Your task to perform on an android device: Search for a cheap bike on Walmart Image 0: 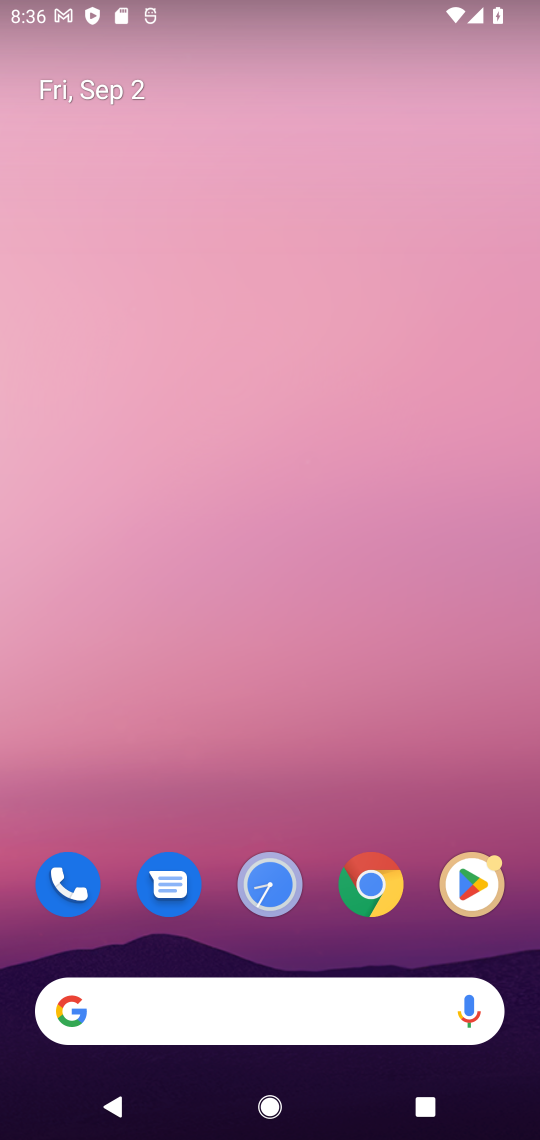
Step 0: click (374, 883)
Your task to perform on an android device: Search for a cheap bike on Walmart Image 1: 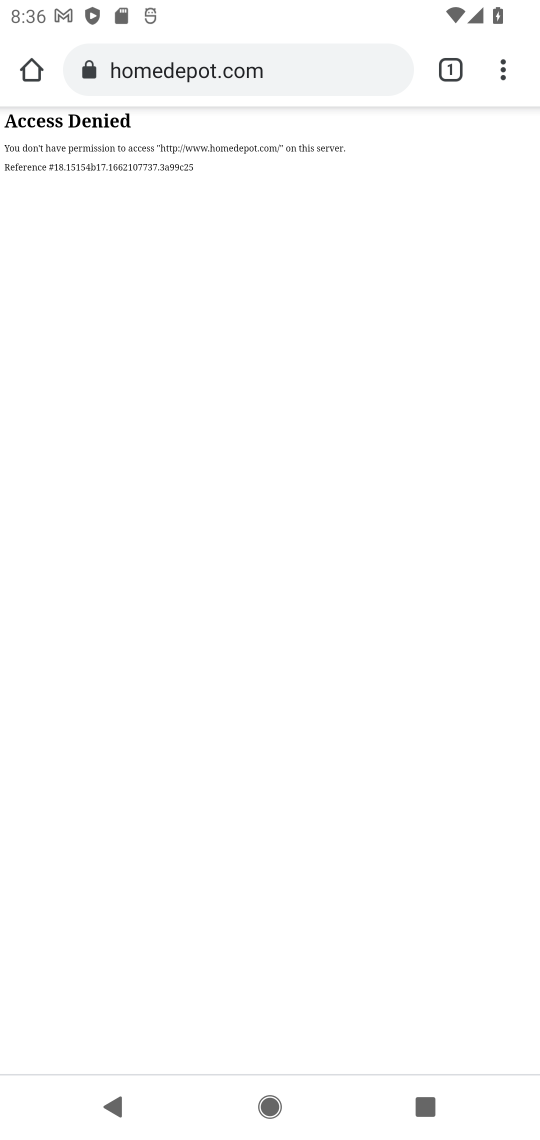
Step 1: click (353, 70)
Your task to perform on an android device: Search for a cheap bike on Walmart Image 2: 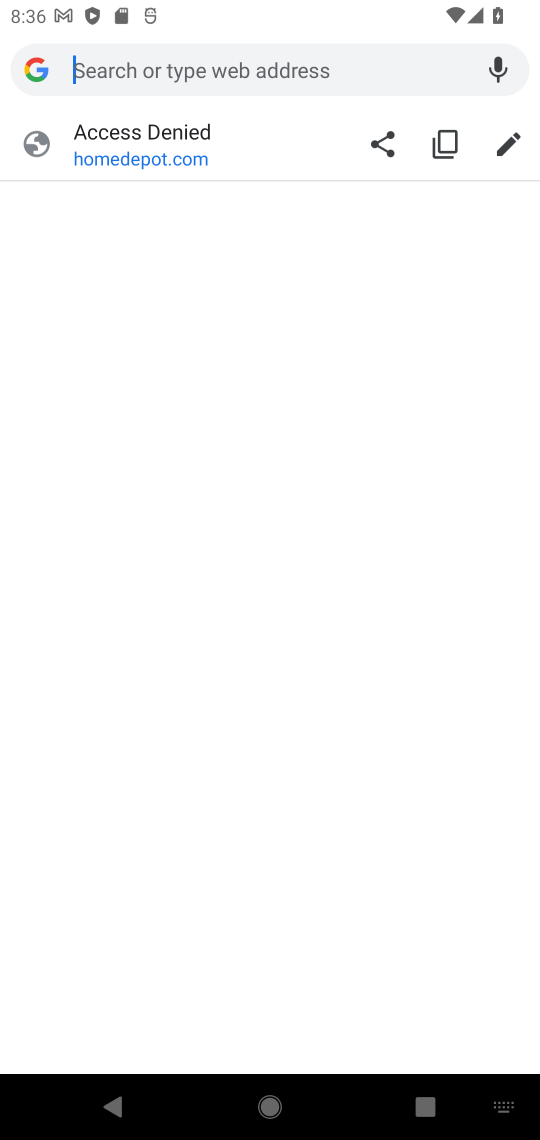
Step 2: type "walmart"
Your task to perform on an android device: Search for a cheap bike on Walmart Image 3: 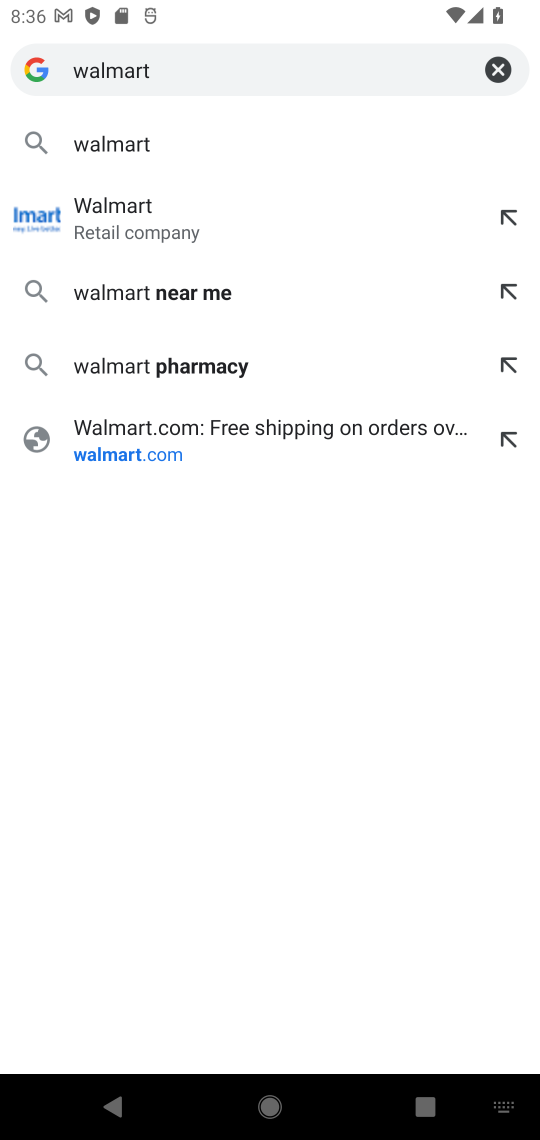
Step 3: click (121, 223)
Your task to perform on an android device: Search for a cheap bike on Walmart Image 4: 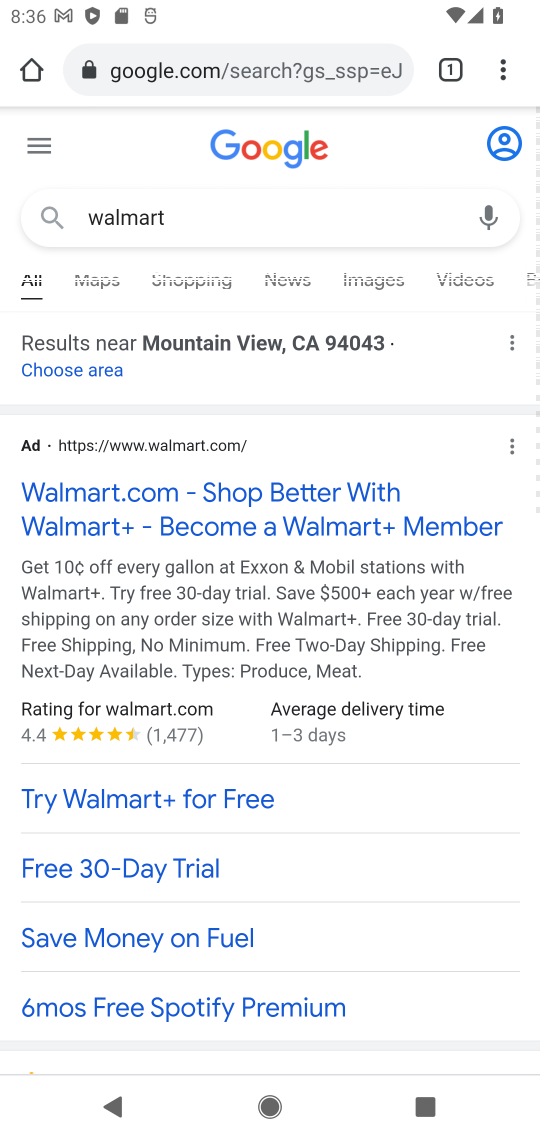
Step 4: click (94, 488)
Your task to perform on an android device: Search for a cheap bike on Walmart Image 5: 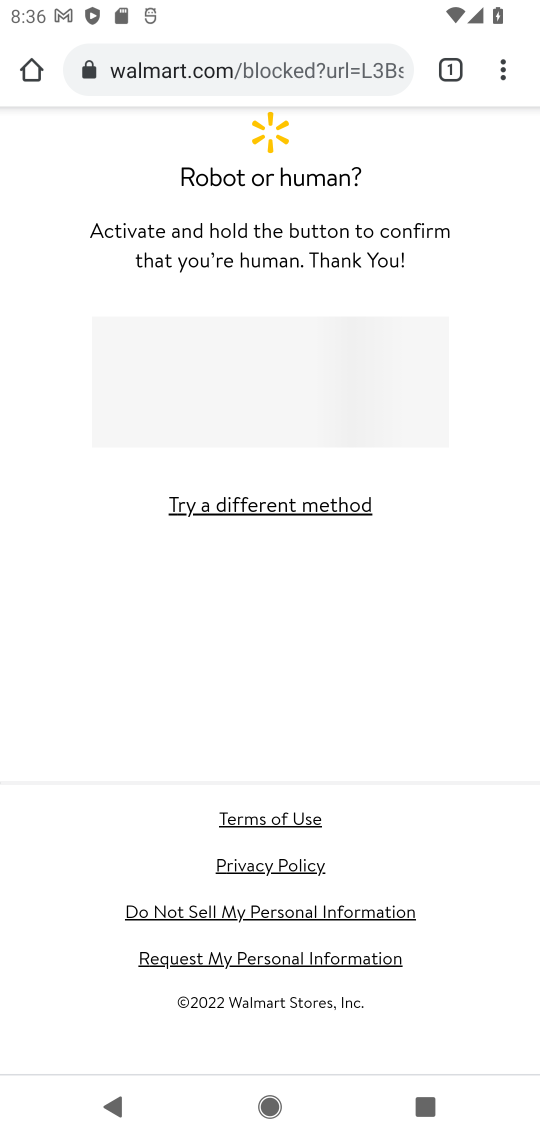
Step 5: drag from (385, 489) to (361, 754)
Your task to perform on an android device: Search for a cheap bike on Walmart Image 6: 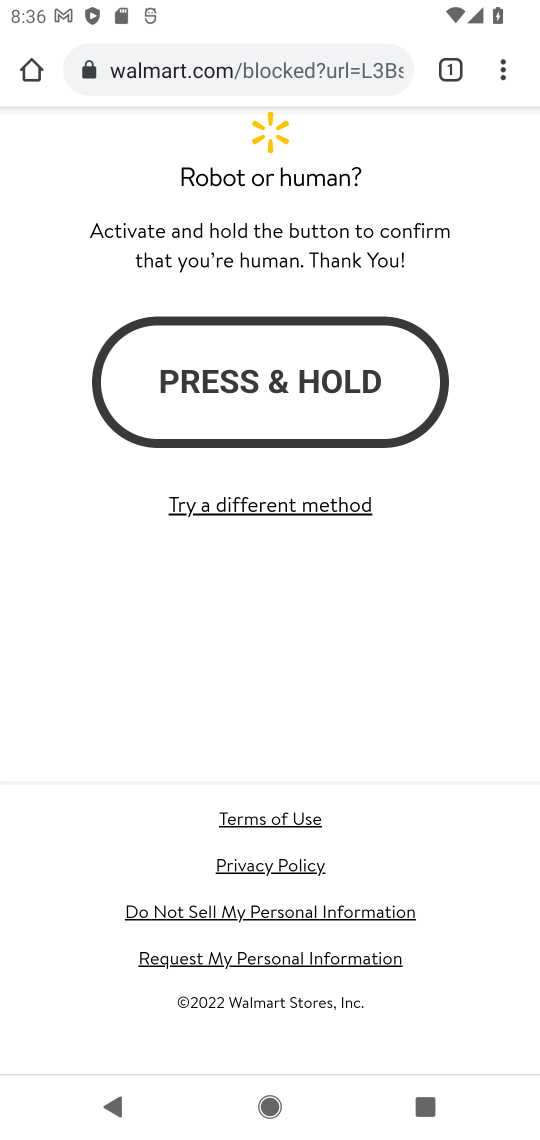
Step 6: drag from (384, 643) to (381, 304)
Your task to perform on an android device: Search for a cheap bike on Walmart Image 7: 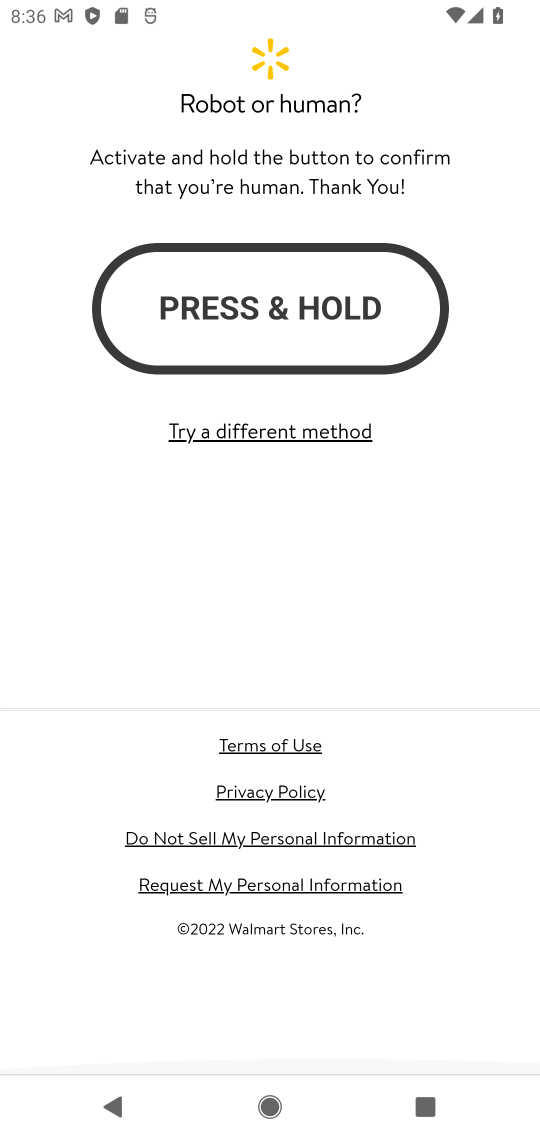
Step 7: drag from (355, 484) to (362, 903)
Your task to perform on an android device: Search for a cheap bike on Walmart Image 8: 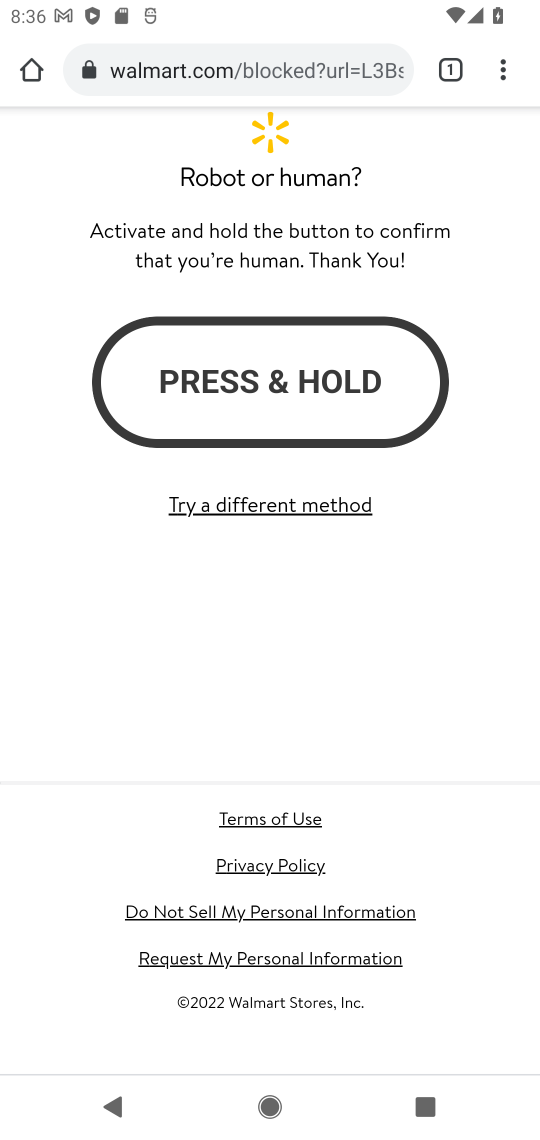
Step 8: press back button
Your task to perform on an android device: Search for a cheap bike on Walmart Image 9: 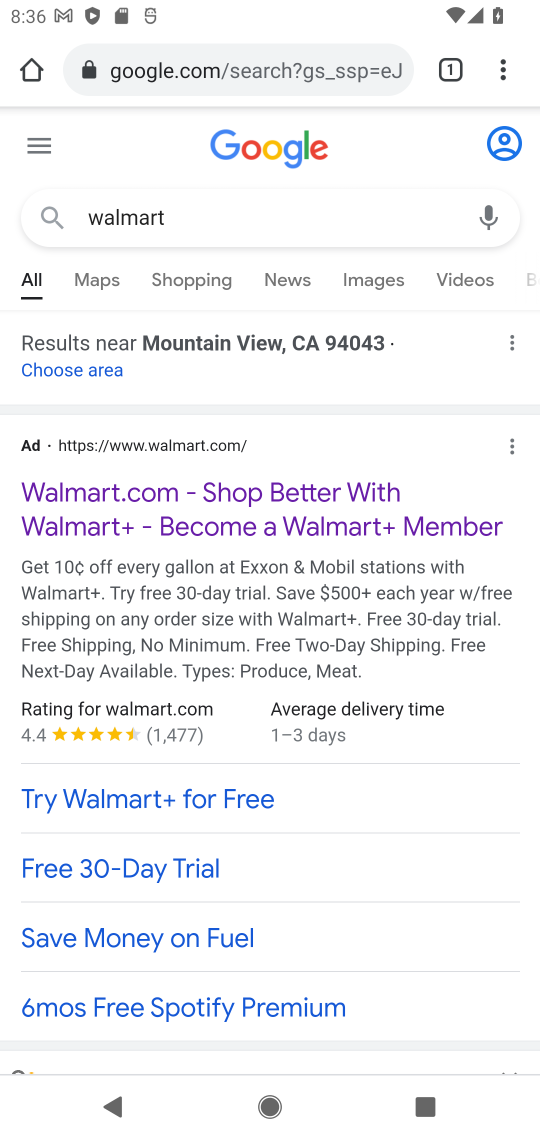
Step 9: drag from (364, 820) to (365, 363)
Your task to perform on an android device: Search for a cheap bike on Walmart Image 10: 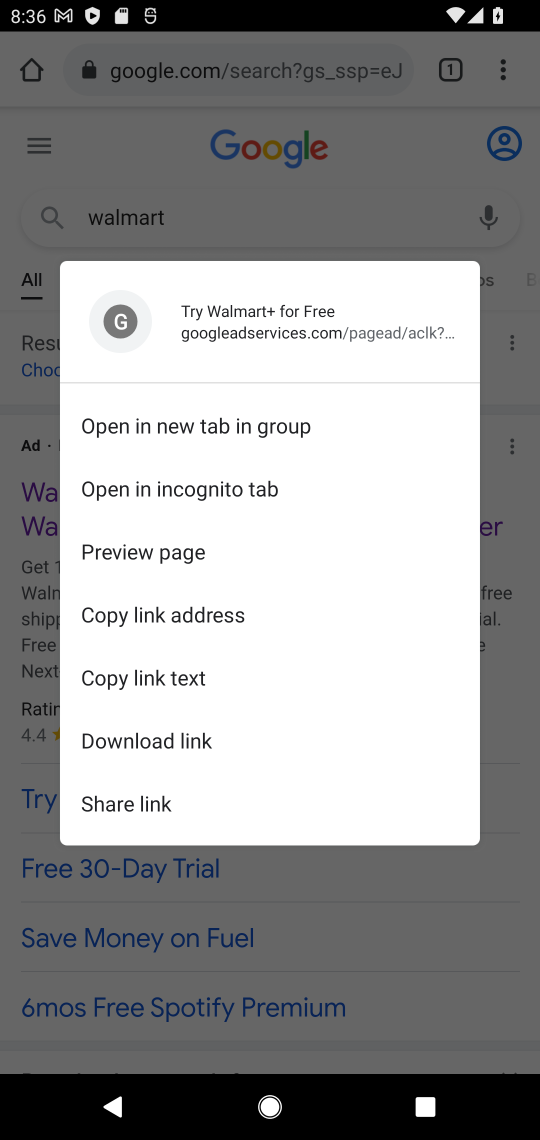
Step 10: click (537, 631)
Your task to perform on an android device: Search for a cheap bike on Walmart Image 11: 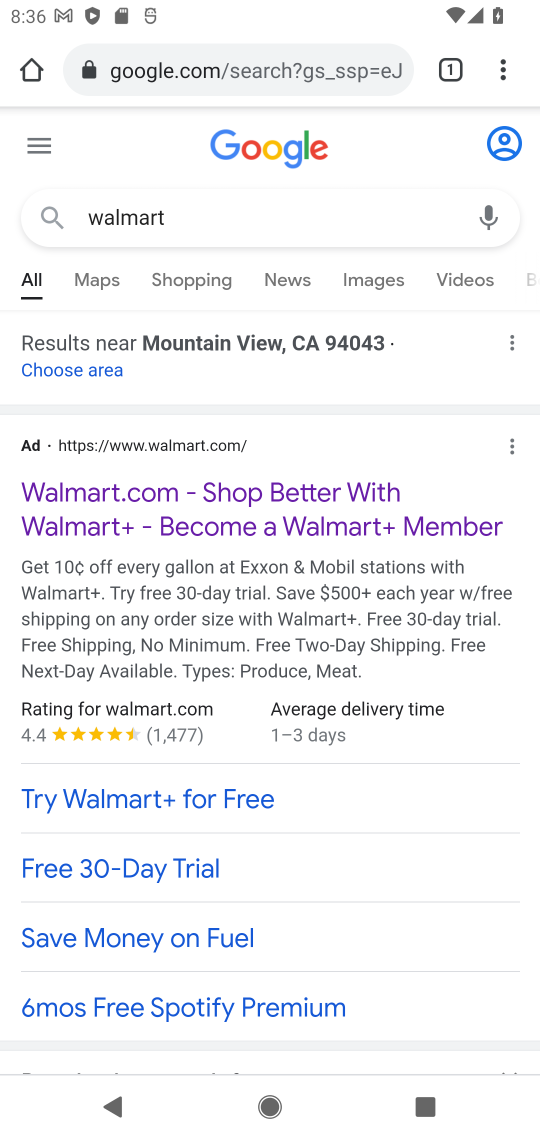
Step 11: drag from (257, 740) to (277, 305)
Your task to perform on an android device: Search for a cheap bike on Walmart Image 12: 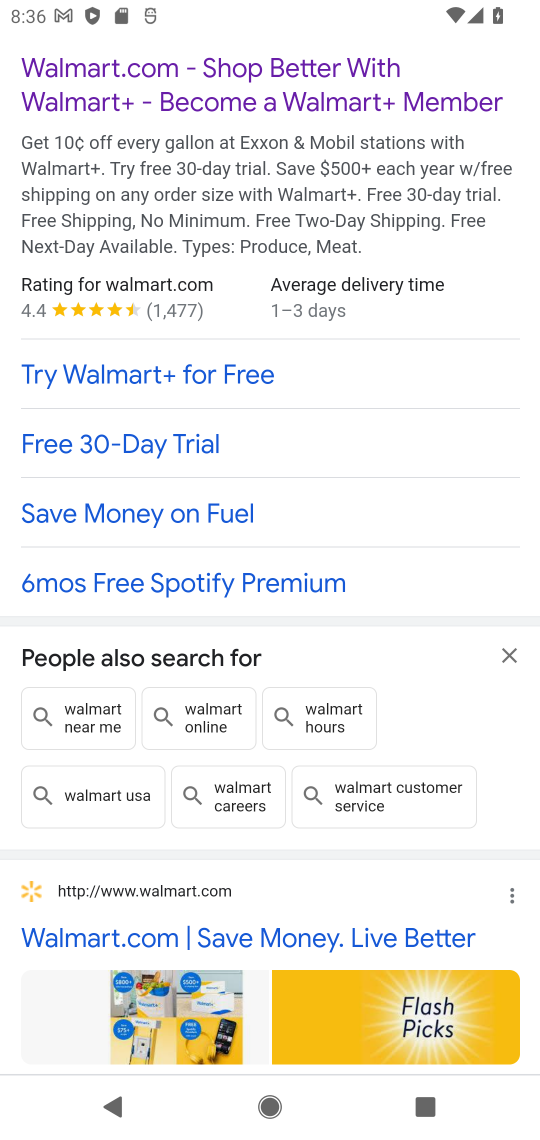
Step 12: drag from (316, 538) to (328, 371)
Your task to perform on an android device: Search for a cheap bike on Walmart Image 13: 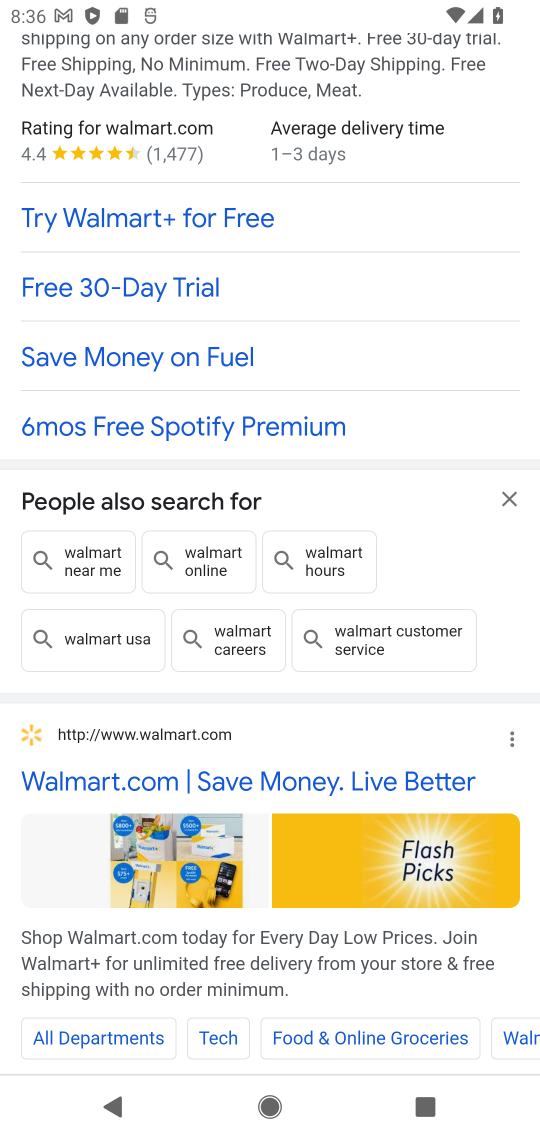
Step 13: click (109, 773)
Your task to perform on an android device: Search for a cheap bike on Walmart Image 14: 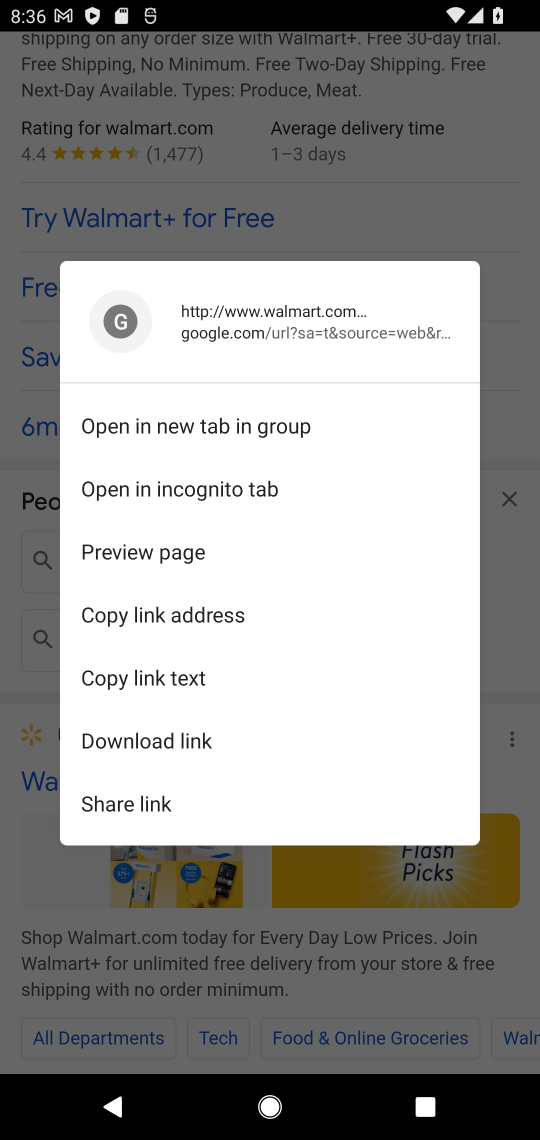
Step 14: click (531, 782)
Your task to perform on an android device: Search for a cheap bike on Walmart Image 15: 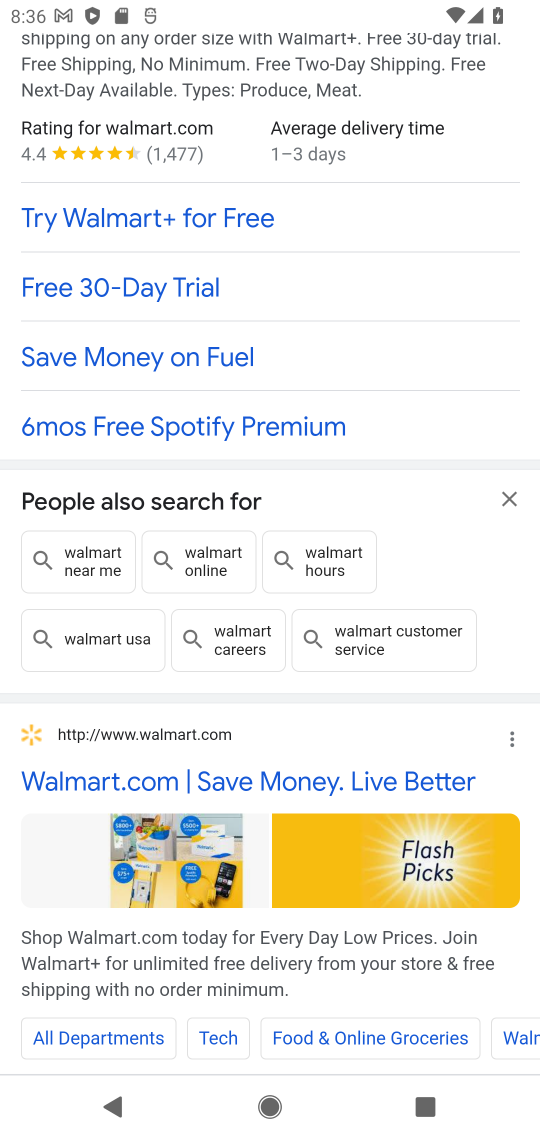
Step 15: click (152, 791)
Your task to perform on an android device: Search for a cheap bike on Walmart Image 16: 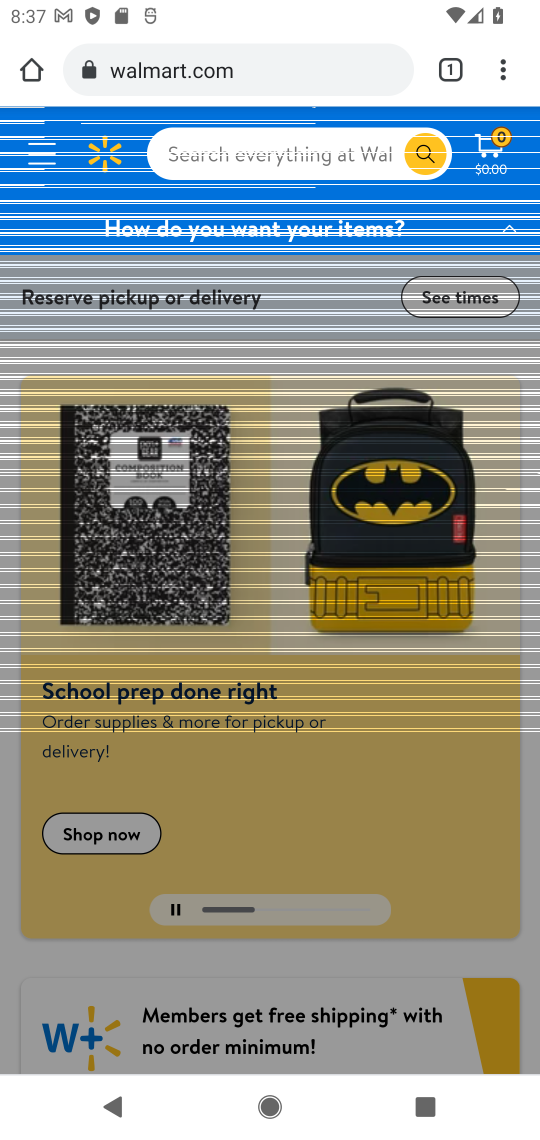
Step 16: click (245, 173)
Your task to perform on an android device: Search for a cheap bike on Walmart Image 17: 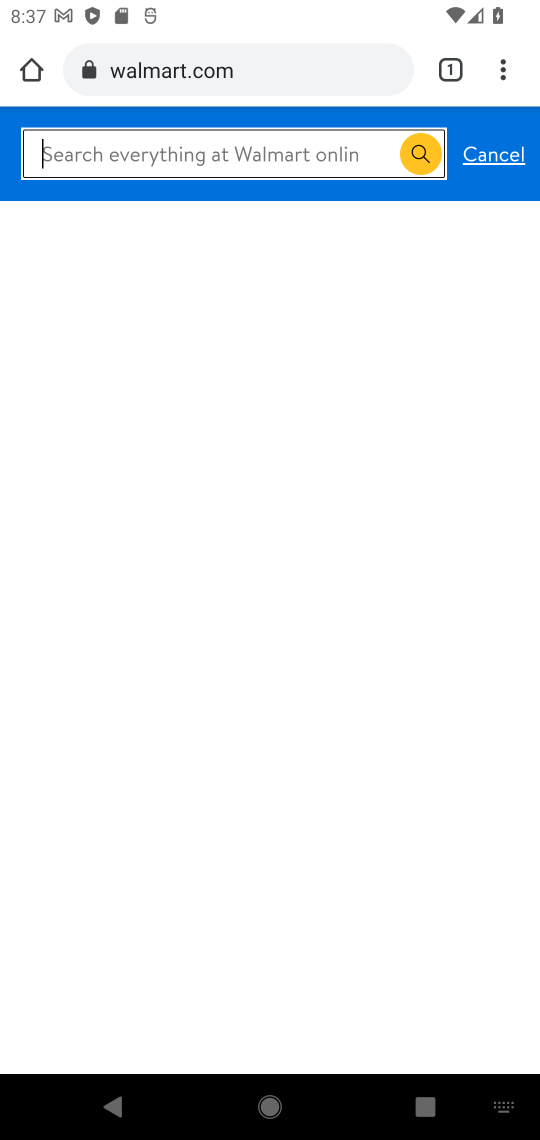
Step 17: type "cheap bike"
Your task to perform on an android device: Search for a cheap bike on Walmart Image 18: 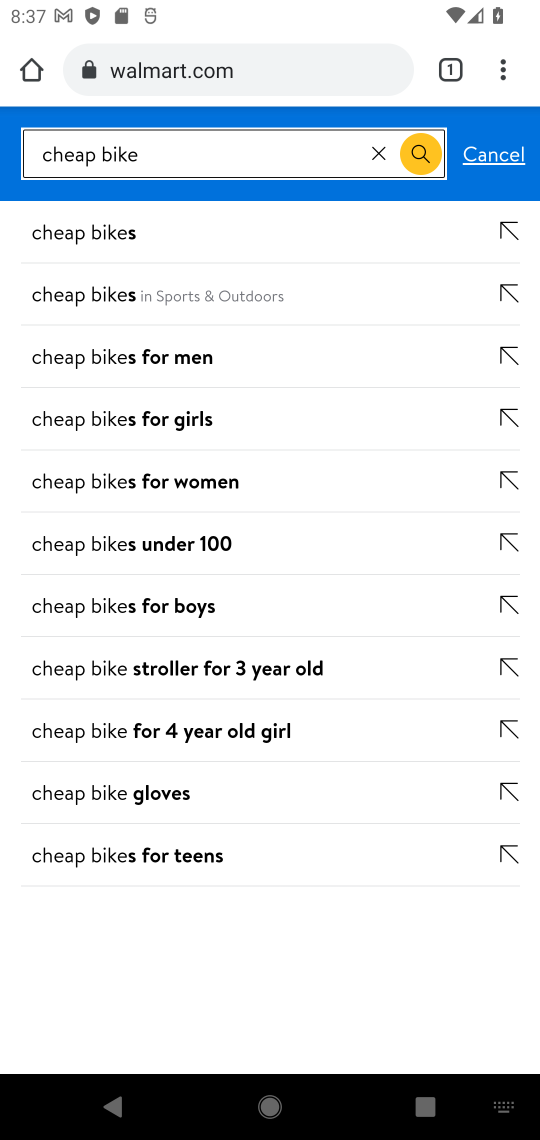
Step 18: click (104, 244)
Your task to perform on an android device: Search for a cheap bike on Walmart Image 19: 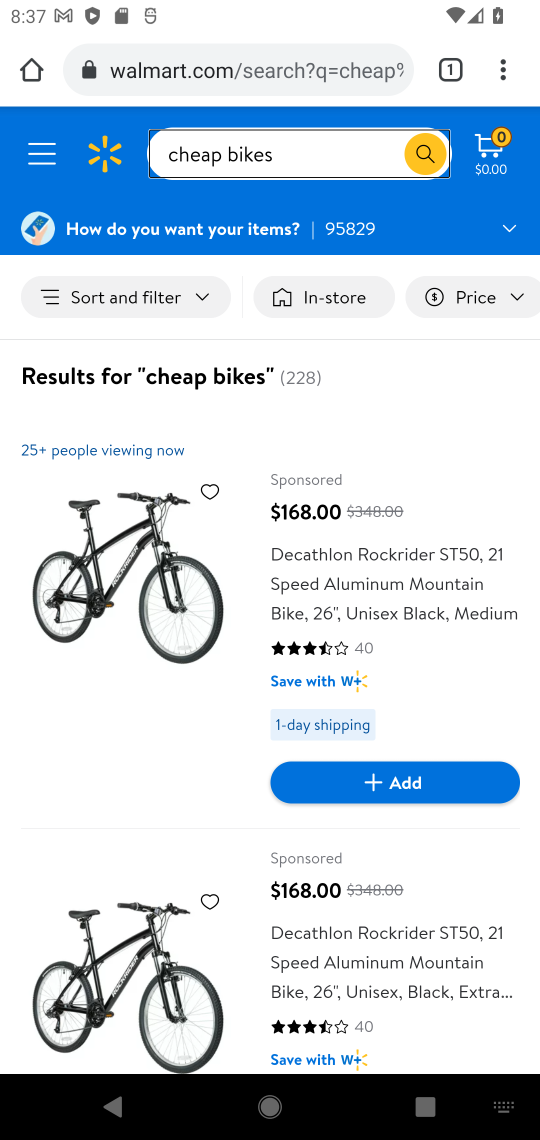
Step 19: task complete